Your task to perform on an android device: turn on priority inbox in the gmail app Image 0: 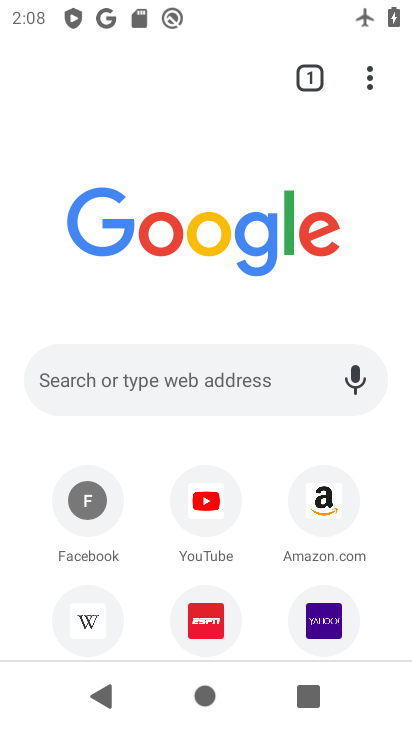
Step 0: press back button
Your task to perform on an android device: turn on priority inbox in the gmail app Image 1: 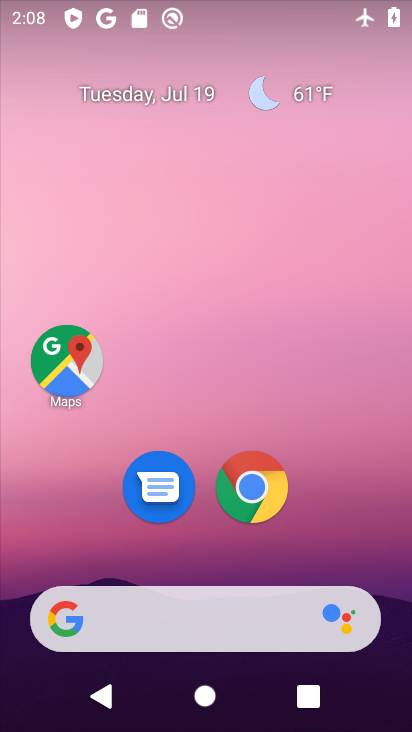
Step 1: drag from (169, 566) to (251, 24)
Your task to perform on an android device: turn on priority inbox in the gmail app Image 2: 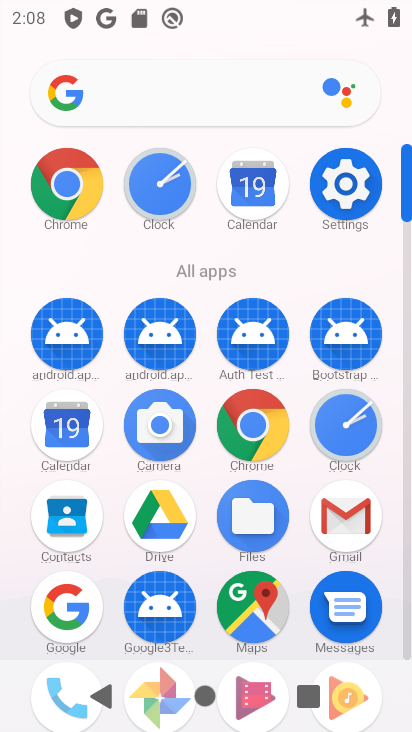
Step 2: click (349, 523)
Your task to perform on an android device: turn on priority inbox in the gmail app Image 3: 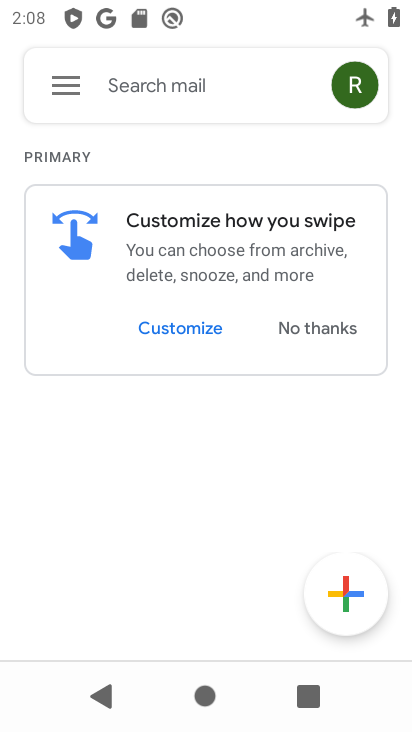
Step 3: click (71, 64)
Your task to perform on an android device: turn on priority inbox in the gmail app Image 4: 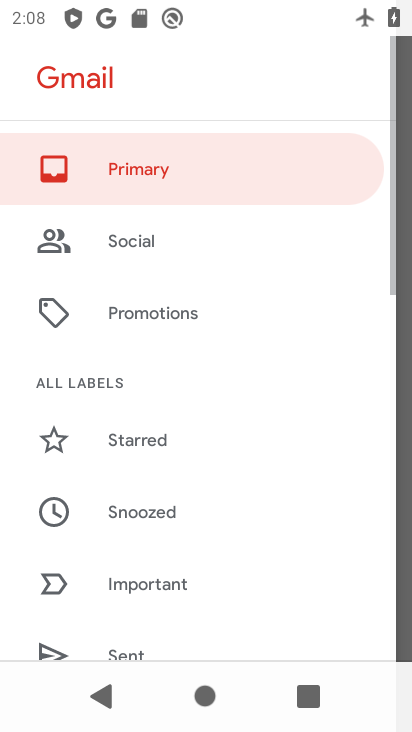
Step 4: drag from (196, 598) to (251, 69)
Your task to perform on an android device: turn on priority inbox in the gmail app Image 5: 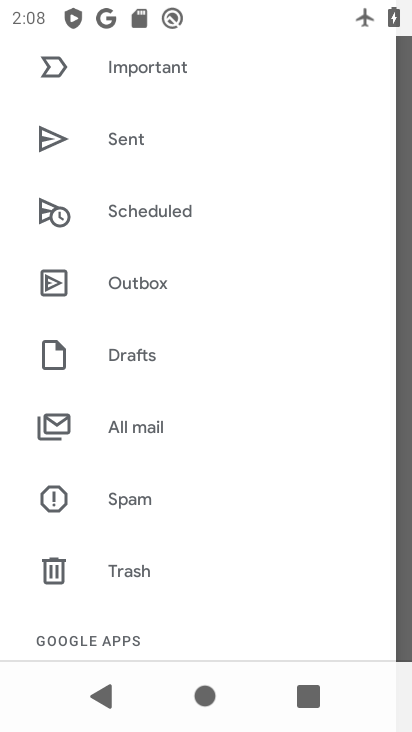
Step 5: drag from (152, 583) to (244, 0)
Your task to perform on an android device: turn on priority inbox in the gmail app Image 6: 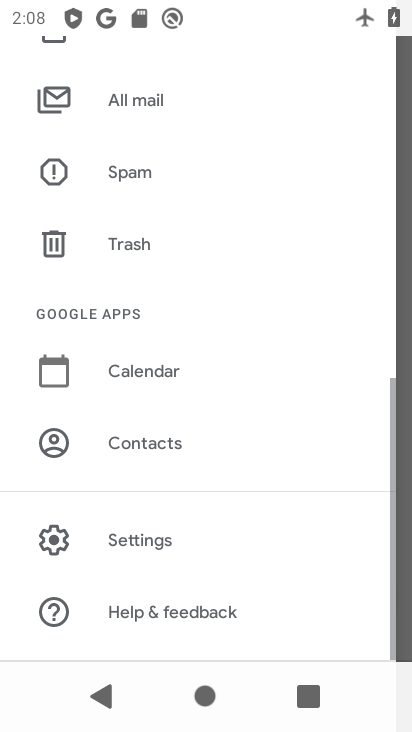
Step 6: click (173, 538)
Your task to perform on an android device: turn on priority inbox in the gmail app Image 7: 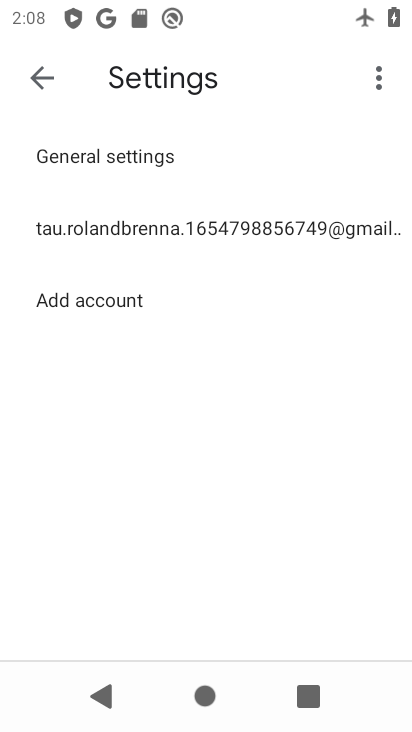
Step 7: click (162, 227)
Your task to perform on an android device: turn on priority inbox in the gmail app Image 8: 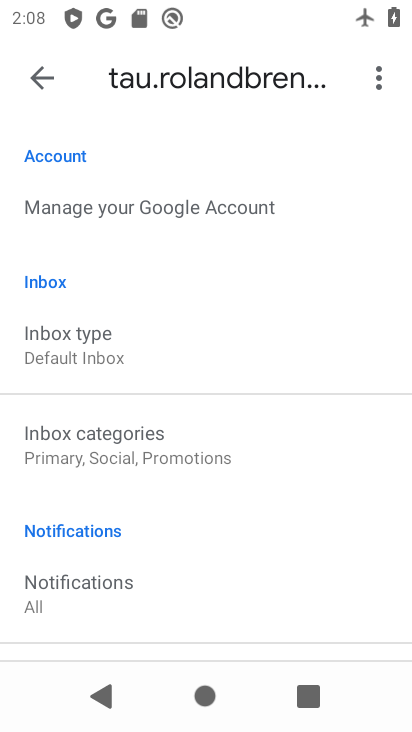
Step 8: click (104, 347)
Your task to perform on an android device: turn on priority inbox in the gmail app Image 9: 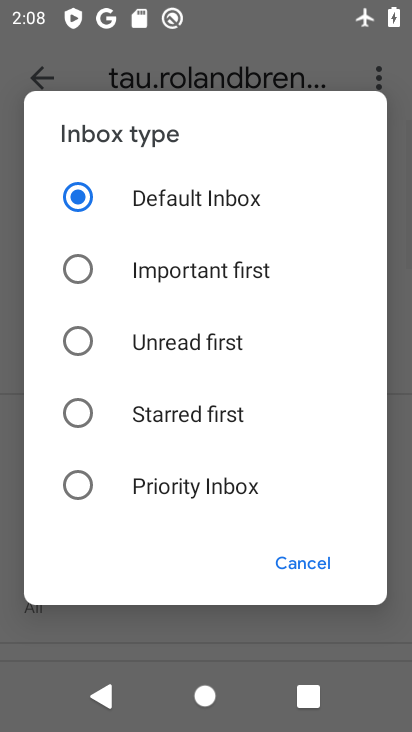
Step 9: click (76, 488)
Your task to perform on an android device: turn on priority inbox in the gmail app Image 10: 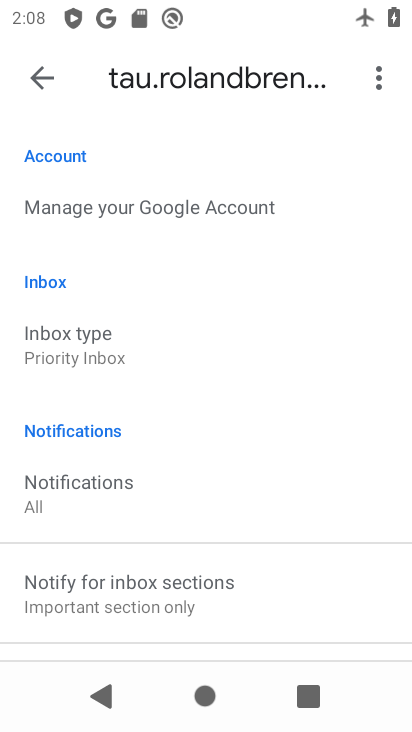
Step 10: task complete